Your task to perform on an android device: turn vacation reply on in the gmail app Image 0: 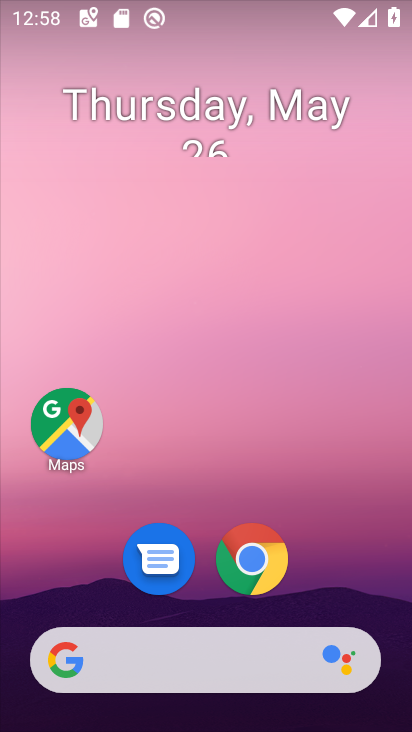
Step 0: press home button
Your task to perform on an android device: turn vacation reply on in the gmail app Image 1: 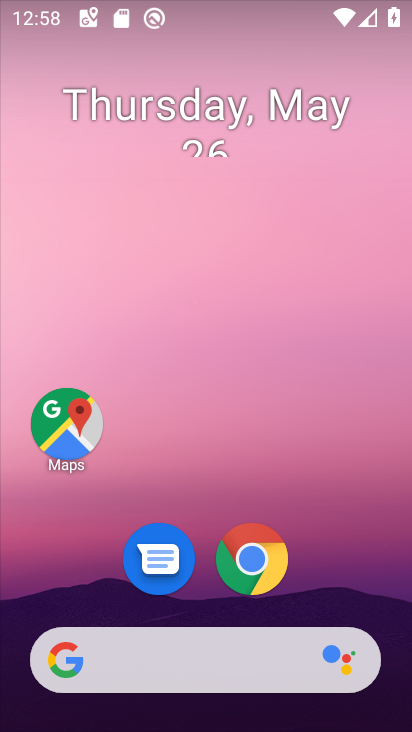
Step 1: drag from (345, 594) to (330, 49)
Your task to perform on an android device: turn vacation reply on in the gmail app Image 2: 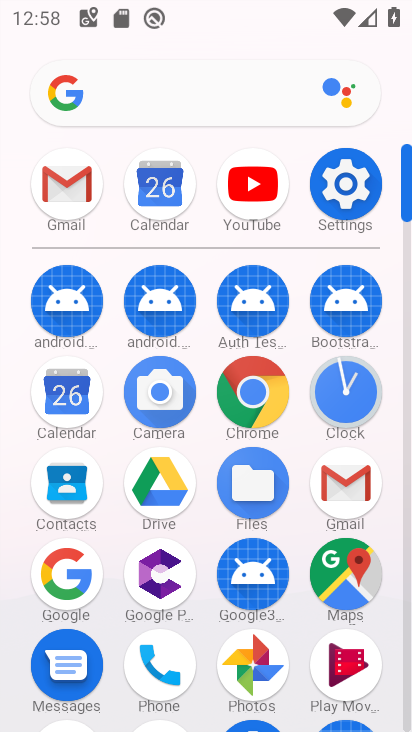
Step 2: click (86, 193)
Your task to perform on an android device: turn vacation reply on in the gmail app Image 3: 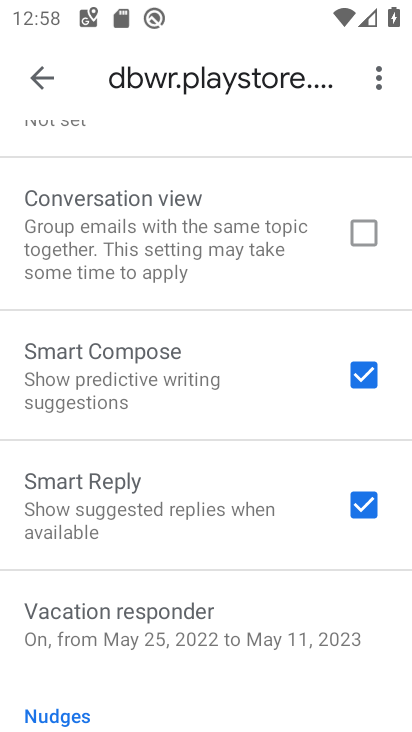
Step 3: click (164, 619)
Your task to perform on an android device: turn vacation reply on in the gmail app Image 4: 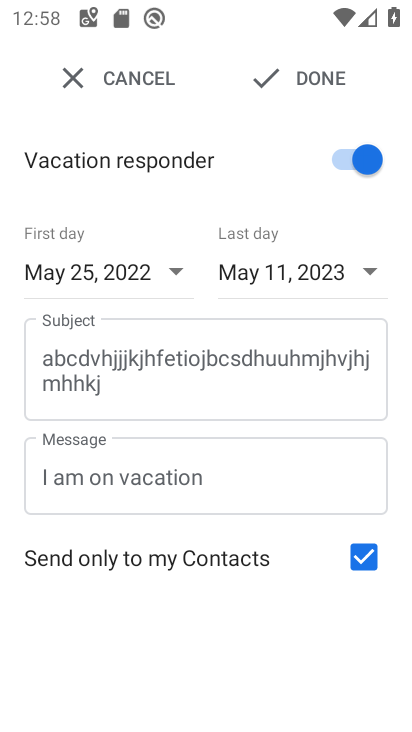
Step 4: task complete